Your task to perform on an android device: create a new album in the google photos Image 0: 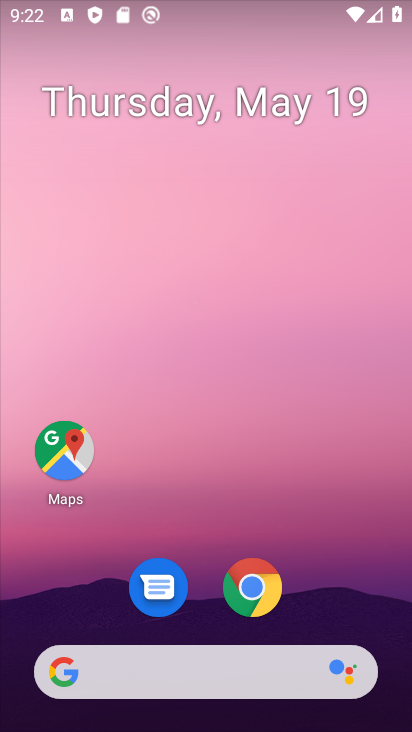
Step 0: drag from (317, 592) to (318, 78)
Your task to perform on an android device: create a new album in the google photos Image 1: 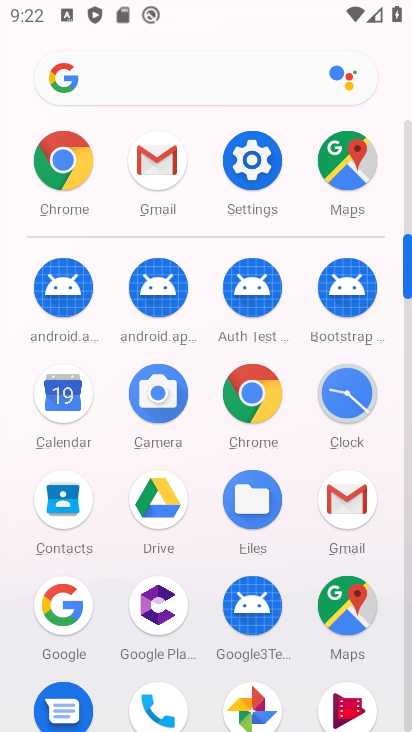
Step 1: drag from (380, 656) to (410, 351)
Your task to perform on an android device: create a new album in the google photos Image 2: 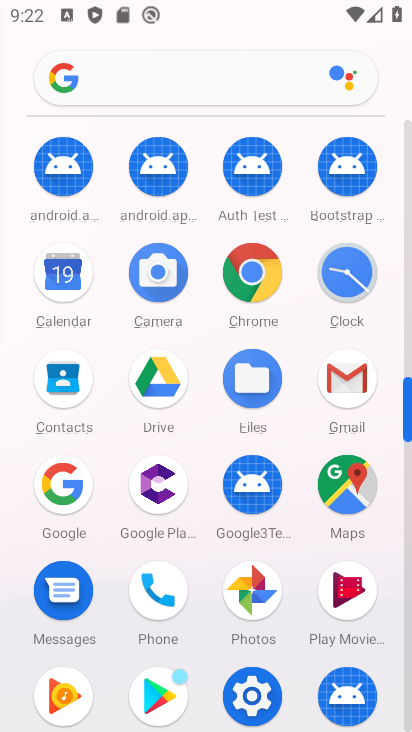
Step 2: click (247, 598)
Your task to perform on an android device: create a new album in the google photos Image 3: 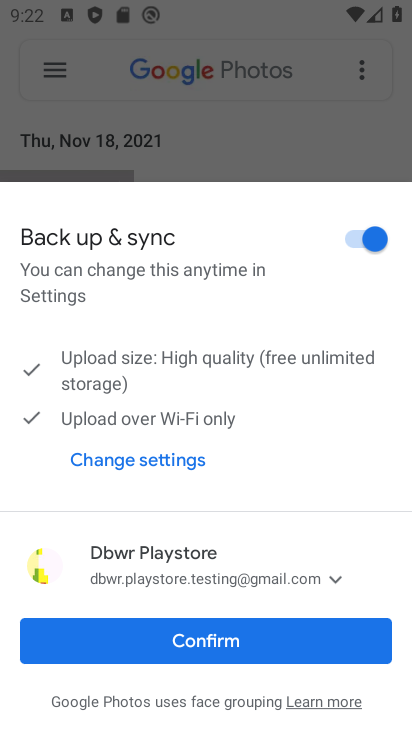
Step 3: click (212, 651)
Your task to perform on an android device: create a new album in the google photos Image 4: 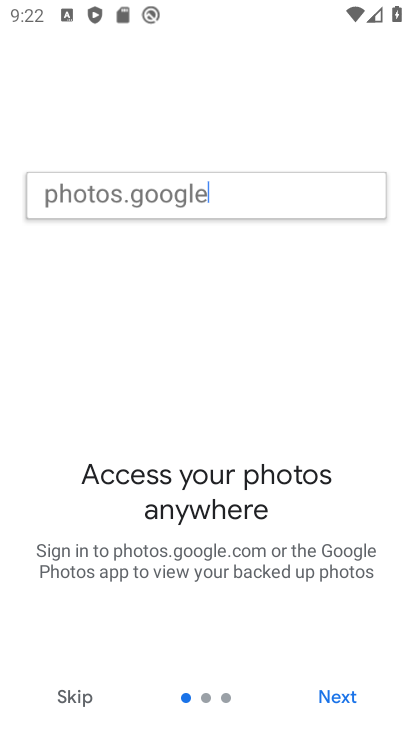
Step 4: click (323, 690)
Your task to perform on an android device: create a new album in the google photos Image 5: 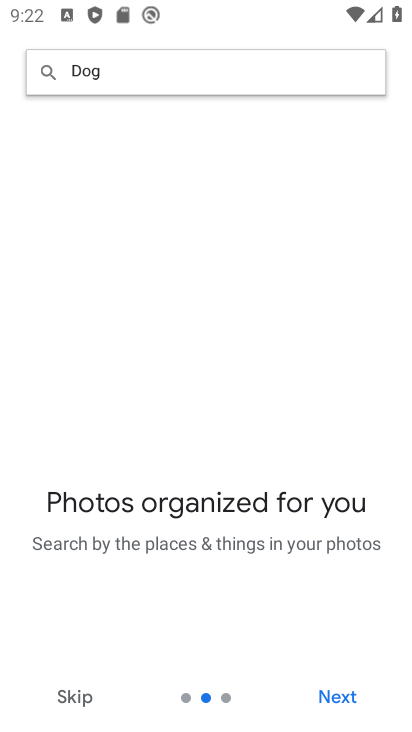
Step 5: click (323, 689)
Your task to perform on an android device: create a new album in the google photos Image 6: 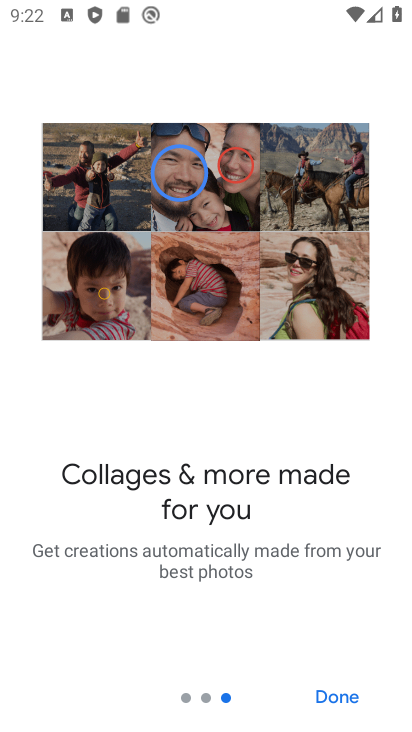
Step 6: click (323, 689)
Your task to perform on an android device: create a new album in the google photos Image 7: 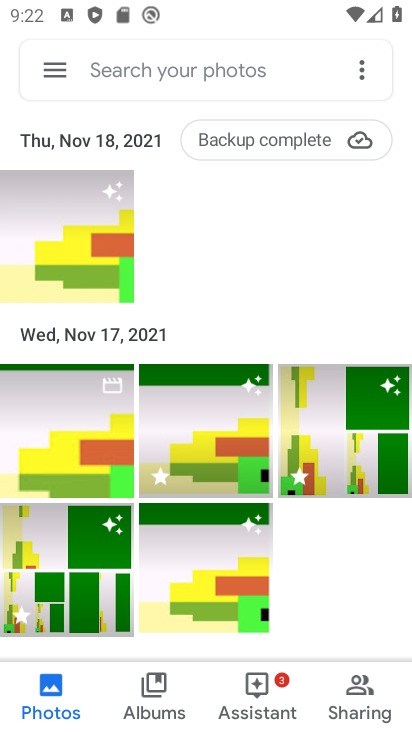
Step 7: click (172, 717)
Your task to perform on an android device: create a new album in the google photos Image 8: 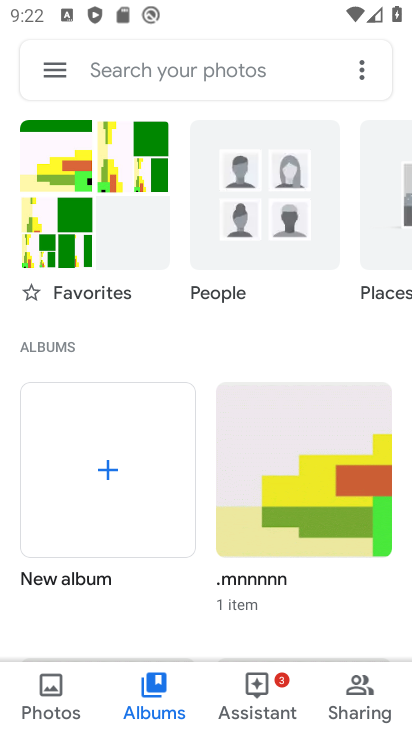
Step 8: click (121, 451)
Your task to perform on an android device: create a new album in the google photos Image 9: 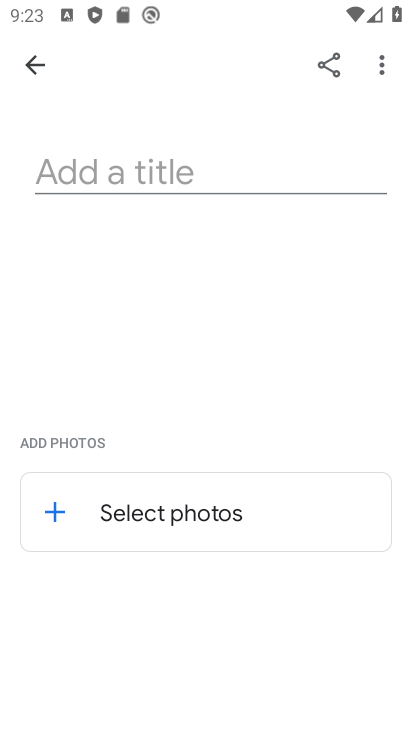
Step 9: click (80, 184)
Your task to perform on an android device: create a new album in the google photos Image 10: 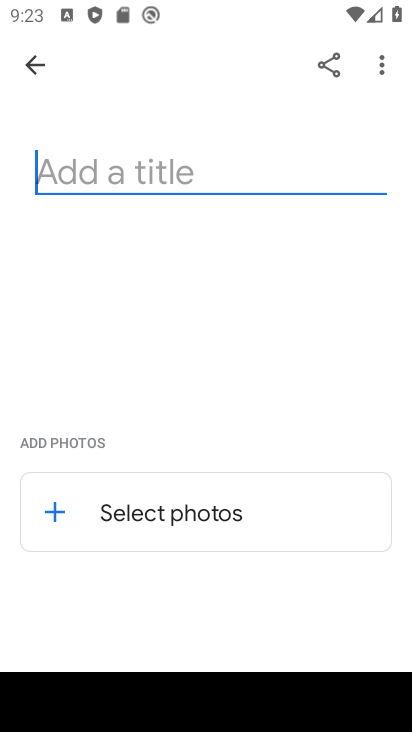
Step 10: type "rtufee"
Your task to perform on an android device: create a new album in the google photos Image 11: 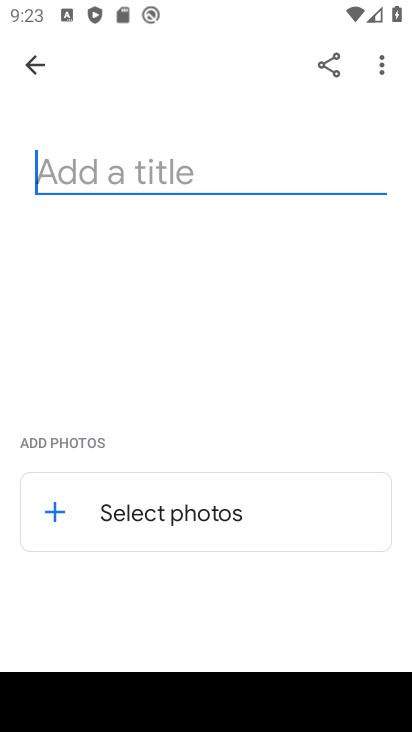
Step 11: click (130, 524)
Your task to perform on an android device: create a new album in the google photos Image 12: 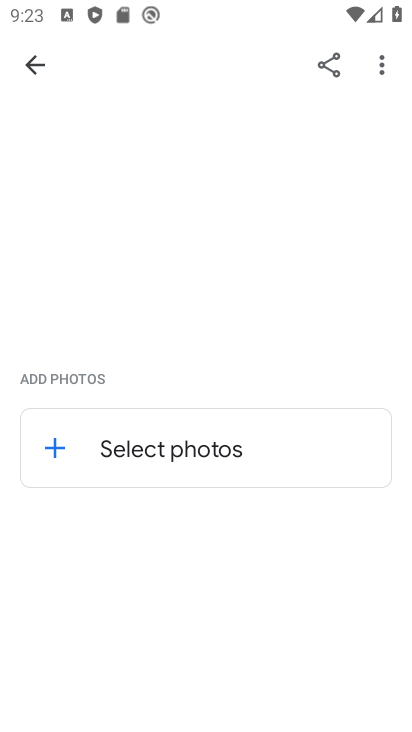
Step 12: click (151, 459)
Your task to perform on an android device: create a new album in the google photos Image 13: 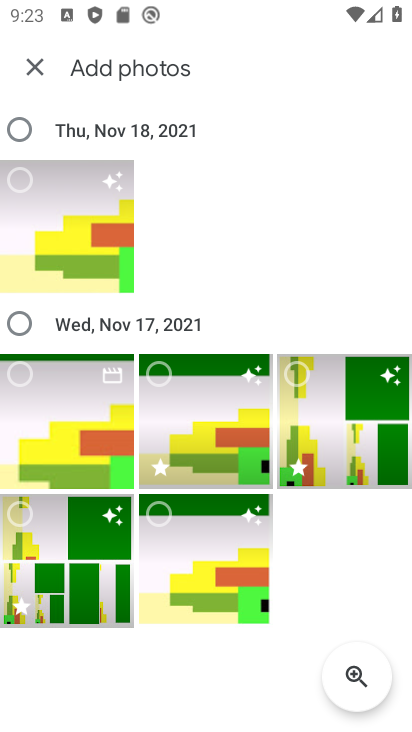
Step 13: click (6, 167)
Your task to perform on an android device: create a new album in the google photos Image 14: 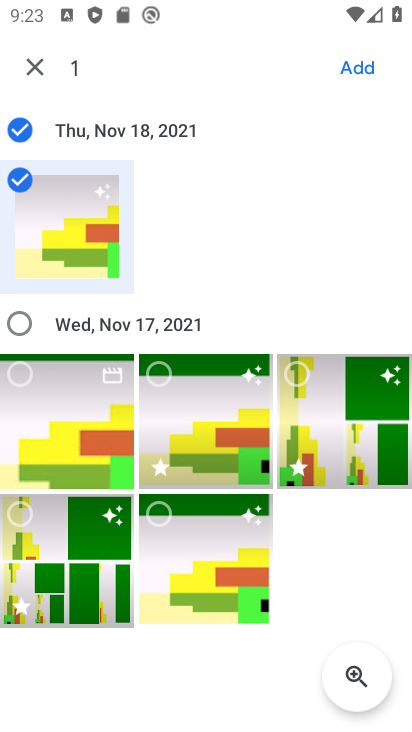
Step 14: click (14, 368)
Your task to perform on an android device: create a new album in the google photos Image 15: 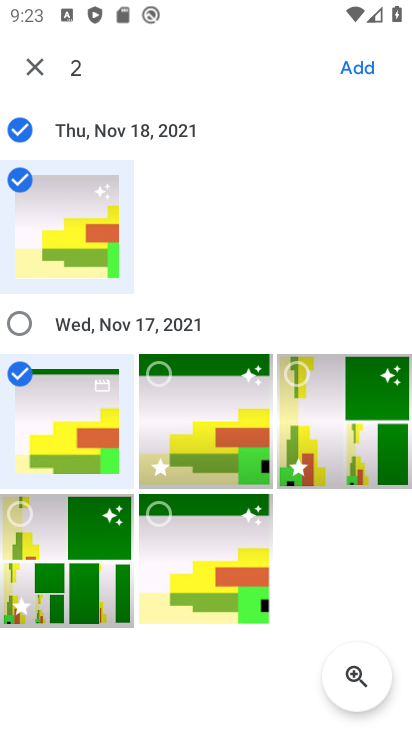
Step 15: click (152, 381)
Your task to perform on an android device: create a new album in the google photos Image 16: 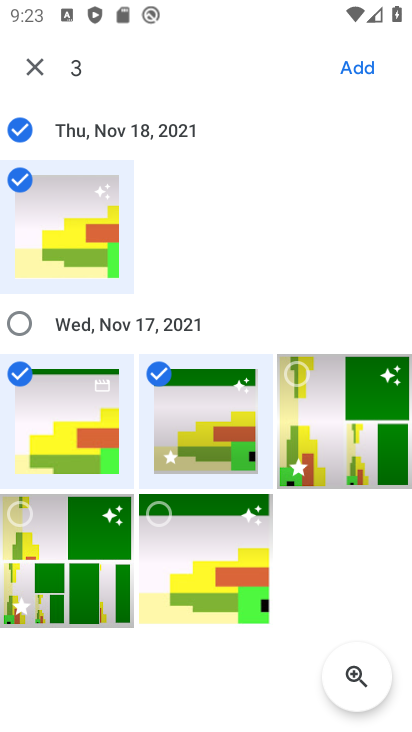
Step 16: click (287, 384)
Your task to perform on an android device: create a new album in the google photos Image 17: 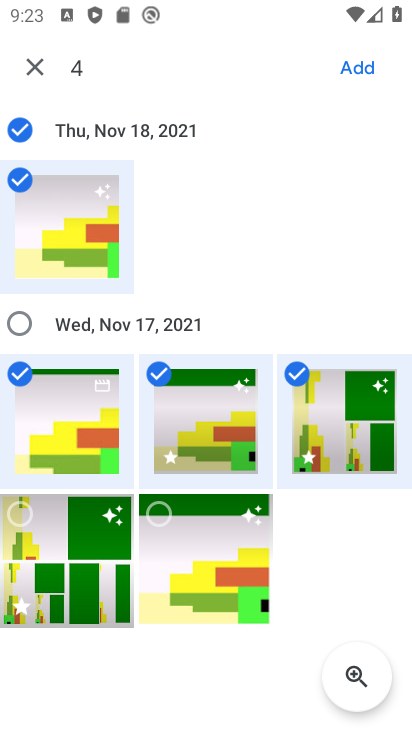
Step 17: click (348, 71)
Your task to perform on an android device: create a new album in the google photos Image 18: 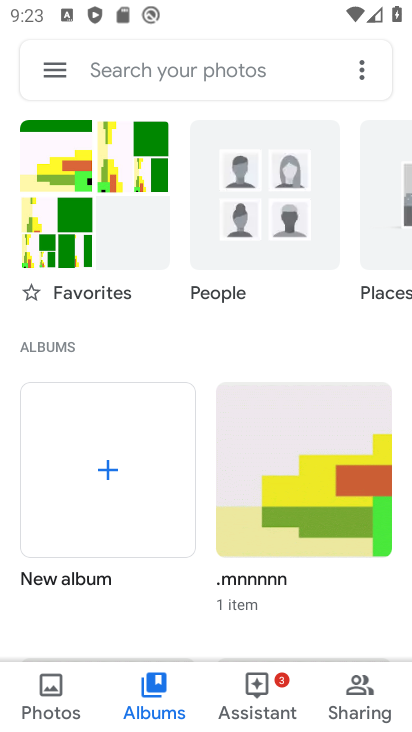
Step 18: task complete